Your task to perform on an android device: all mails in gmail Image 0: 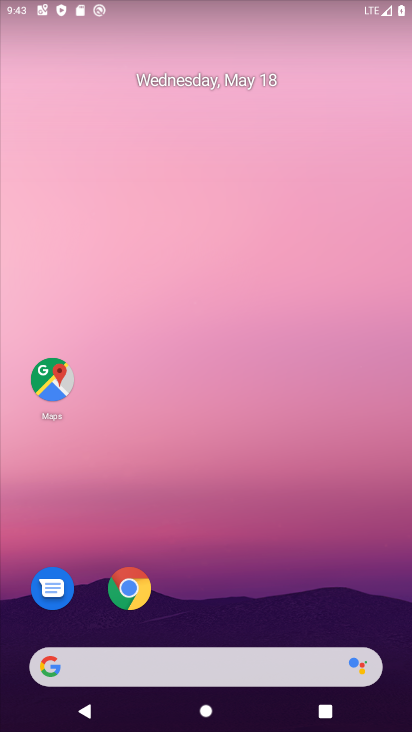
Step 0: drag from (366, 495) to (340, 6)
Your task to perform on an android device: all mails in gmail Image 1: 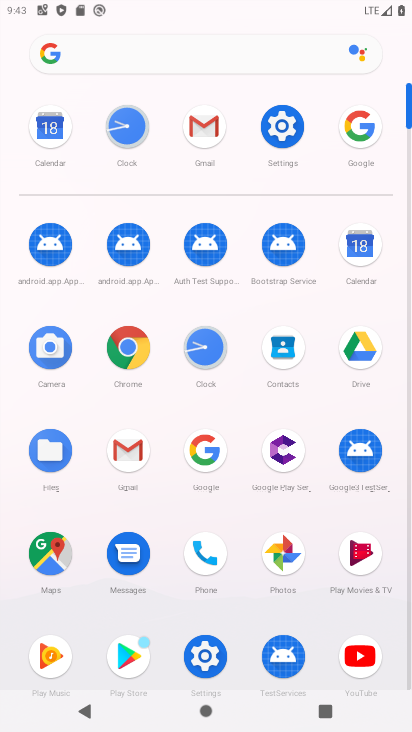
Step 1: click (202, 131)
Your task to perform on an android device: all mails in gmail Image 2: 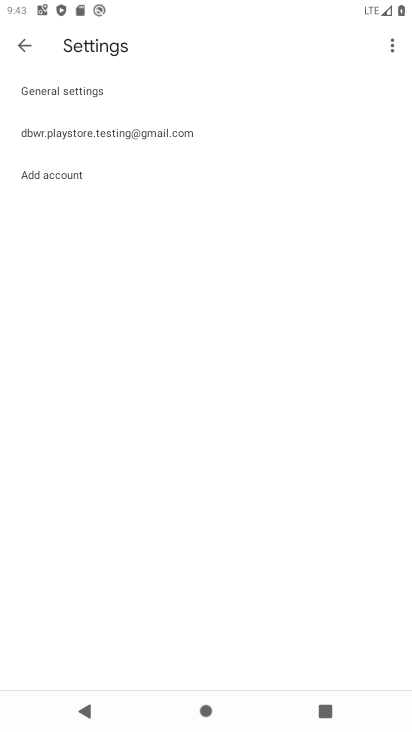
Step 2: click (21, 52)
Your task to perform on an android device: all mails in gmail Image 3: 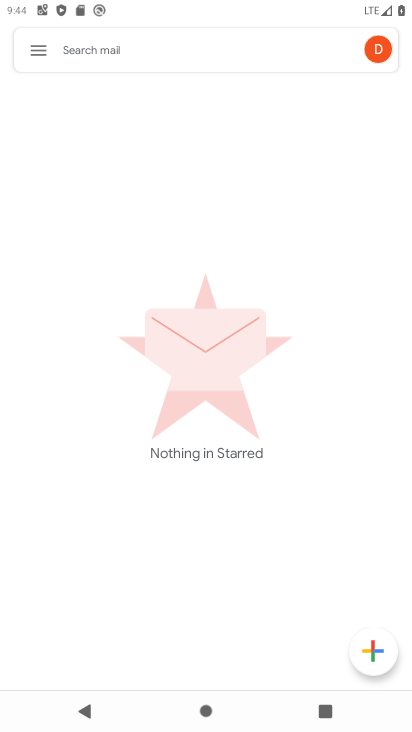
Step 3: click (38, 48)
Your task to perform on an android device: all mails in gmail Image 4: 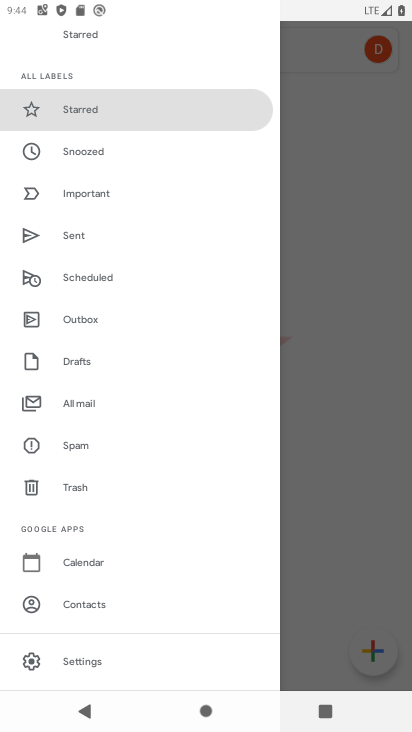
Step 4: click (86, 400)
Your task to perform on an android device: all mails in gmail Image 5: 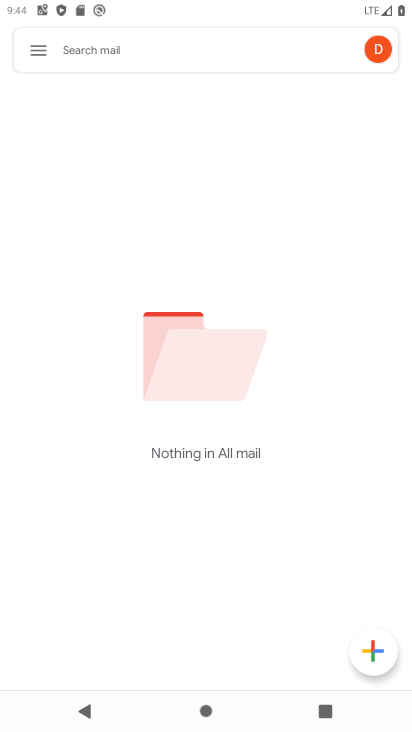
Step 5: task complete